Your task to perform on an android device: turn on translation in the chrome app Image 0: 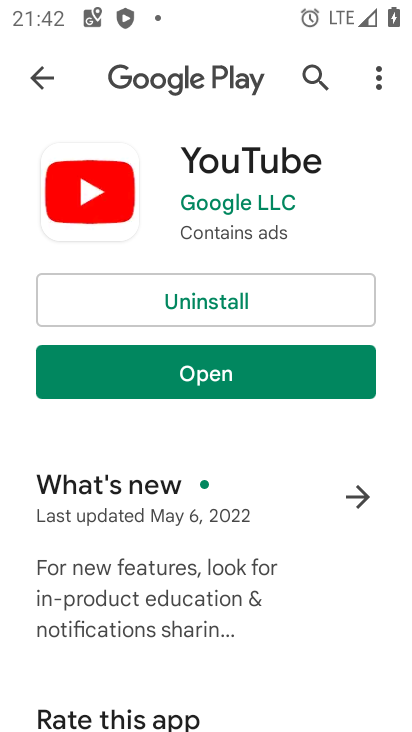
Step 0: press home button
Your task to perform on an android device: turn on translation in the chrome app Image 1: 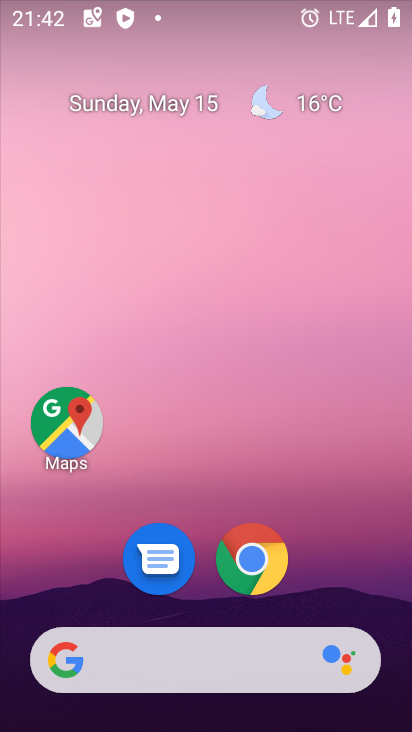
Step 1: click (252, 557)
Your task to perform on an android device: turn on translation in the chrome app Image 2: 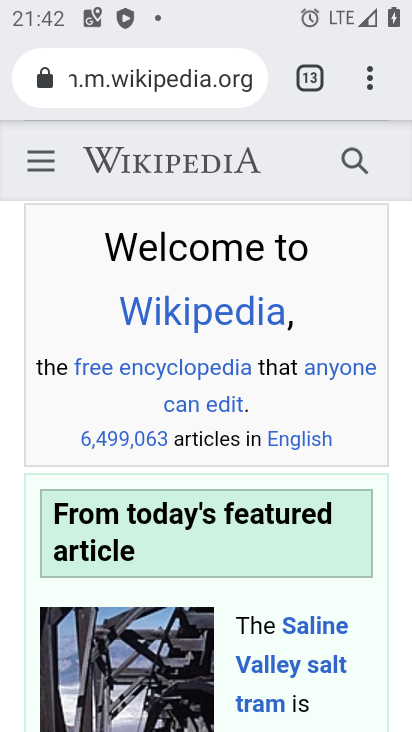
Step 2: click (371, 72)
Your task to perform on an android device: turn on translation in the chrome app Image 3: 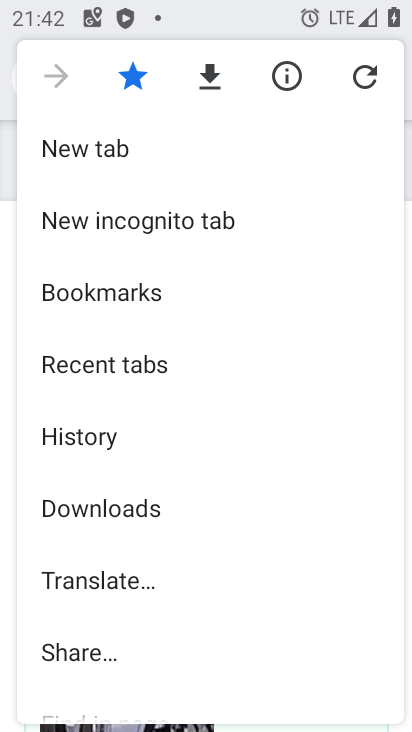
Step 3: drag from (210, 526) to (163, 284)
Your task to perform on an android device: turn on translation in the chrome app Image 4: 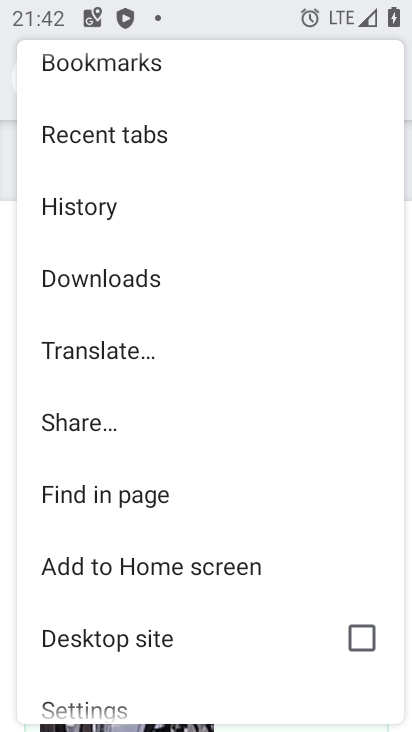
Step 4: drag from (197, 603) to (140, 379)
Your task to perform on an android device: turn on translation in the chrome app Image 5: 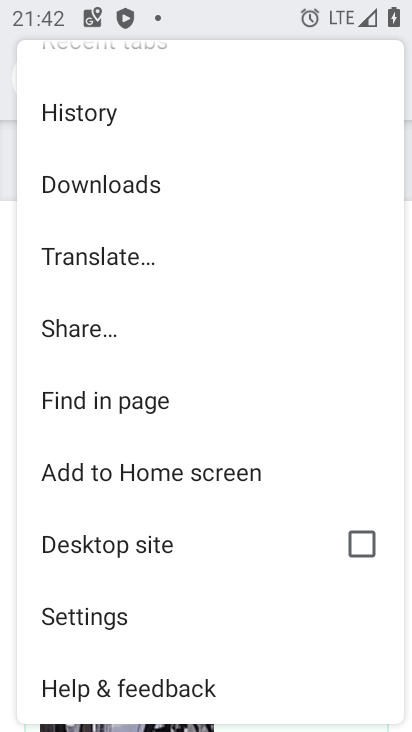
Step 5: click (86, 609)
Your task to perform on an android device: turn on translation in the chrome app Image 6: 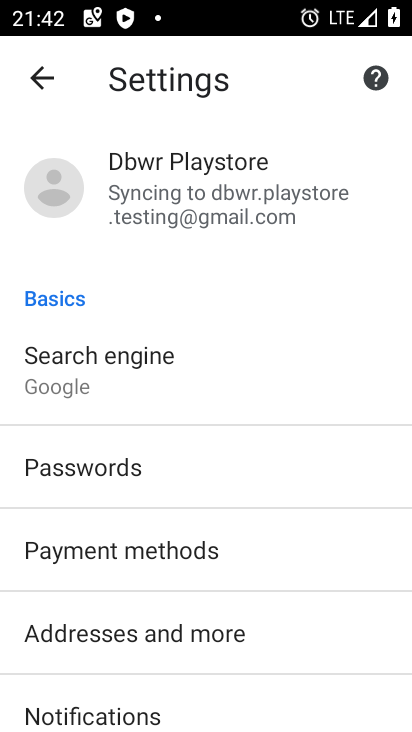
Step 6: drag from (289, 585) to (230, 233)
Your task to perform on an android device: turn on translation in the chrome app Image 7: 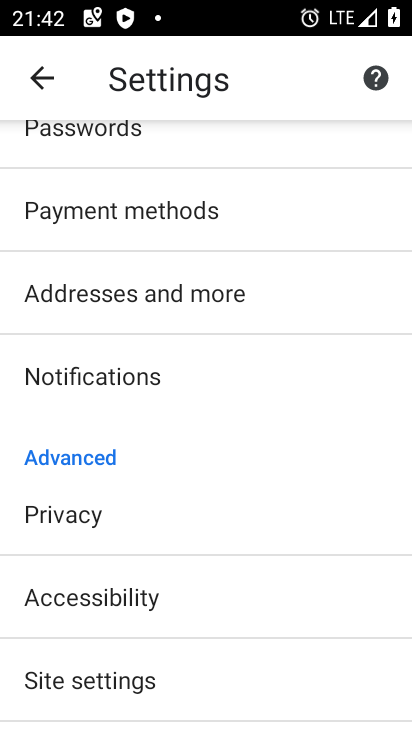
Step 7: drag from (173, 446) to (147, 326)
Your task to perform on an android device: turn on translation in the chrome app Image 8: 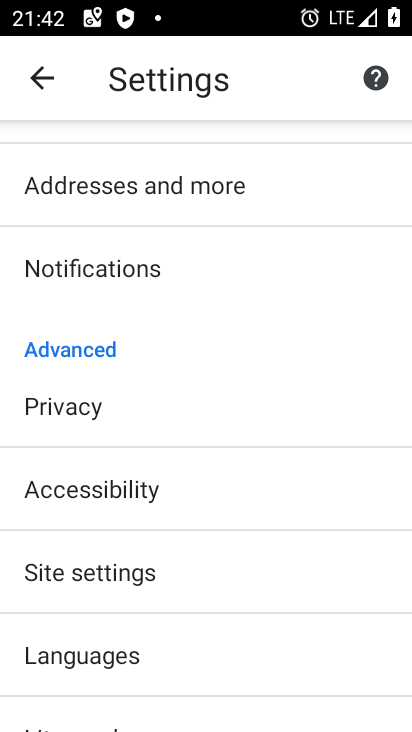
Step 8: click (113, 657)
Your task to perform on an android device: turn on translation in the chrome app Image 9: 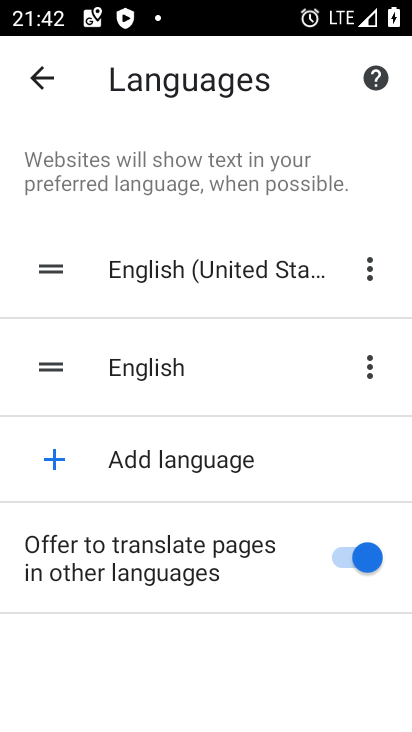
Step 9: click (352, 556)
Your task to perform on an android device: turn on translation in the chrome app Image 10: 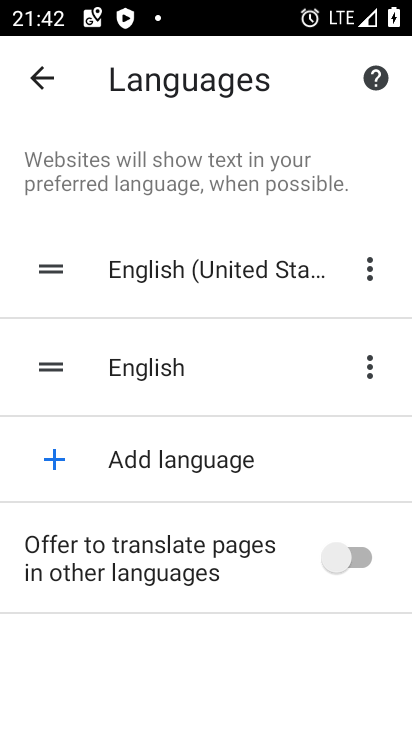
Step 10: task complete